Your task to perform on an android device: open device folders in google photos Image 0: 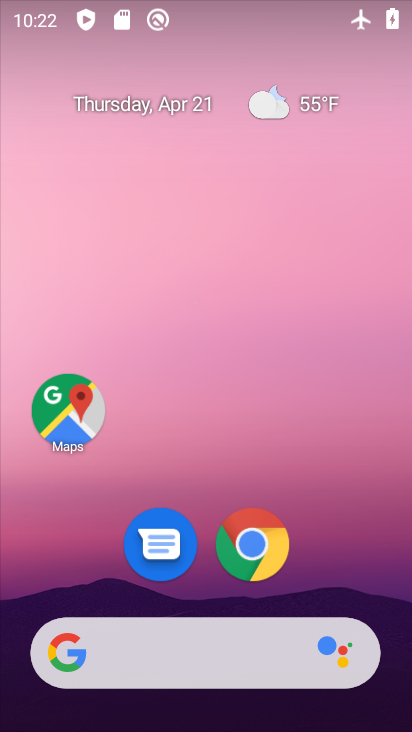
Step 0: drag from (379, 530) to (251, 45)
Your task to perform on an android device: open device folders in google photos Image 1: 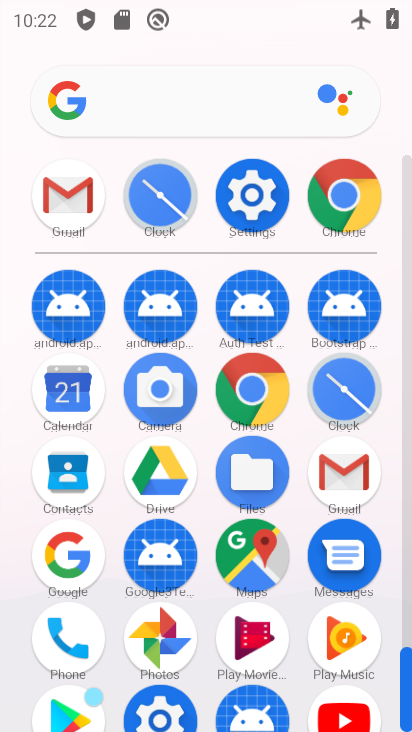
Step 1: drag from (15, 483) to (1, 196)
Your task to perform on an android device: open device folders in google photos Image 2: 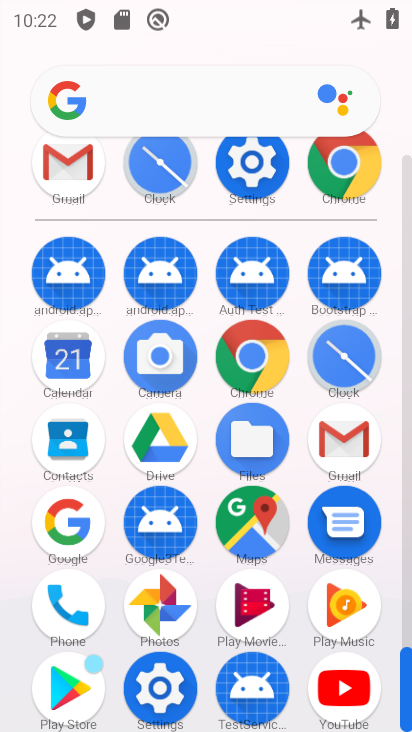
Step 2: drag from (16, 607) to (0, 379)
Your task to perform on an android device: open device folders in google photos Image 3: 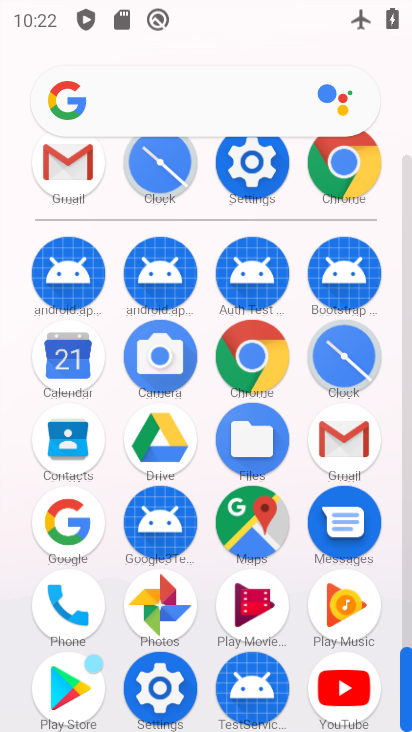
Step 3: click (160, 597)
Your task to perform on an android device: open device folders in google photos Image 4: 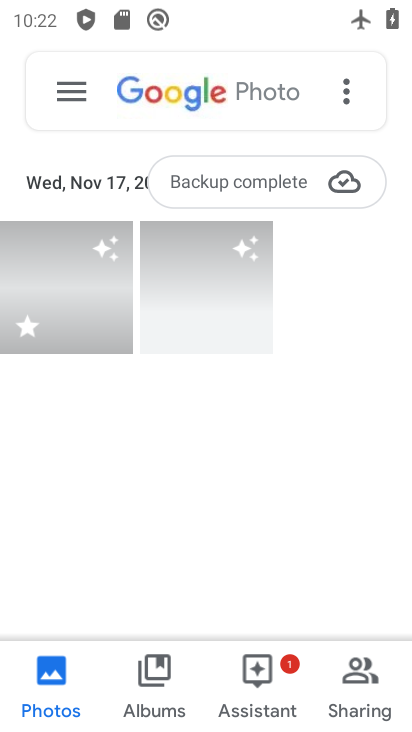
Step 4: click (67, 78)
Your task to perform on an android device: open device folders in google photos Image 5: 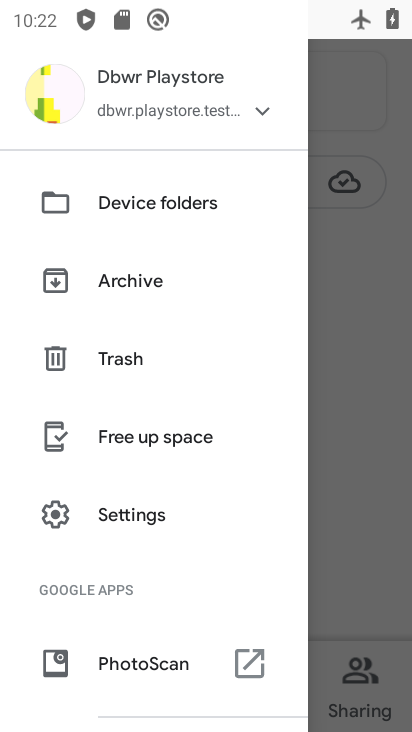
Step 5: click (101, 212)
Your task to perform on an android device: open device folders in google photos Image 6: 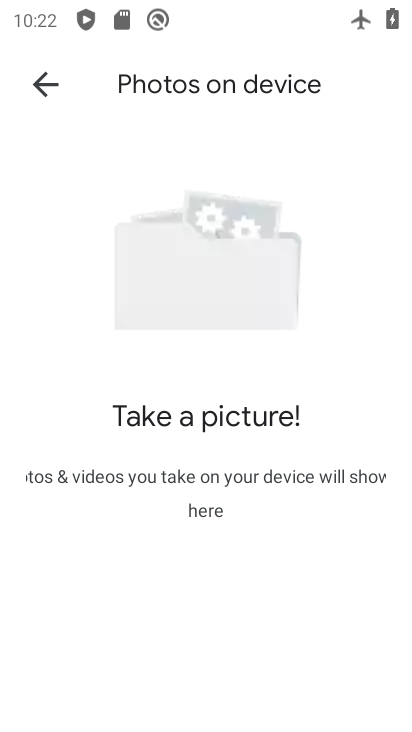
Step 6: task complete